Your task to perform on an android device: turn on sleep mode Image 0: 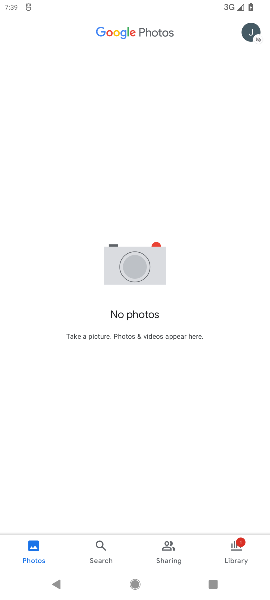
Step 0: press home button
Your task to perform on an android device: turn on sleep mode Image 1: 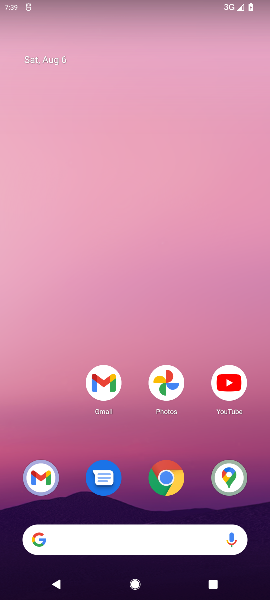
Step 1: drag from (60, 425) to (75, 77)
Your task to perform on an android device: turn on sleep mode Image 2: 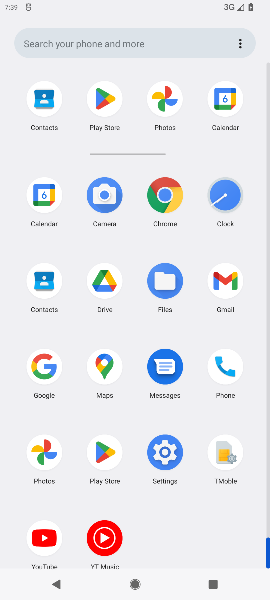
Step 2: click (157, 440)
Your task to perform on an android device: turn on sleep mode Image 3: 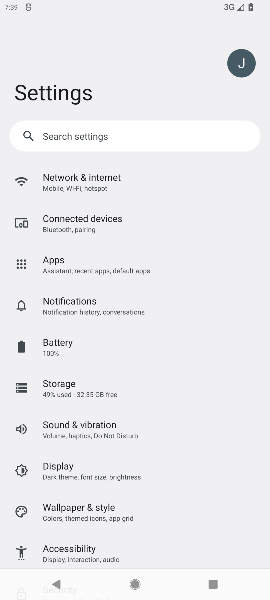
Step 3: click (70, 469)
Your task to perform on an android device: turn on sleep mode Image 4: 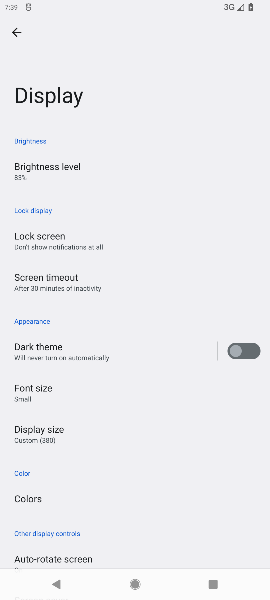
Step 4: task complete